Your task to perform on an android device: Go to ESPN.com Image 0: 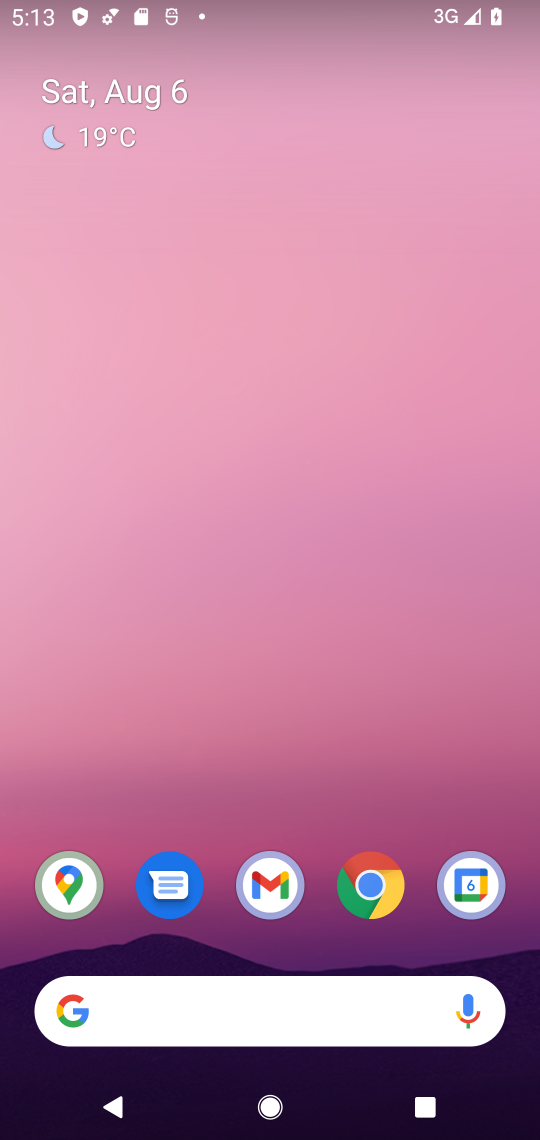
Step 0: drag from (435, 935) to (223, 42)
Your task to perform on an android device: Go to ESPN.com Image 1: 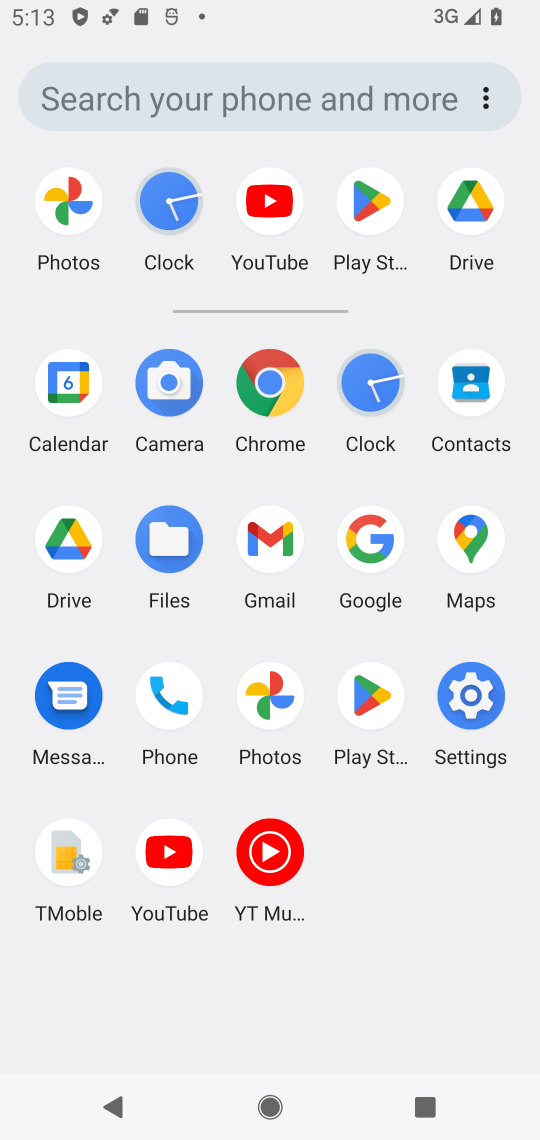
Step 1: click (361, 553)
Your task to perform on an android device: Go to ESPN.com Image 2: 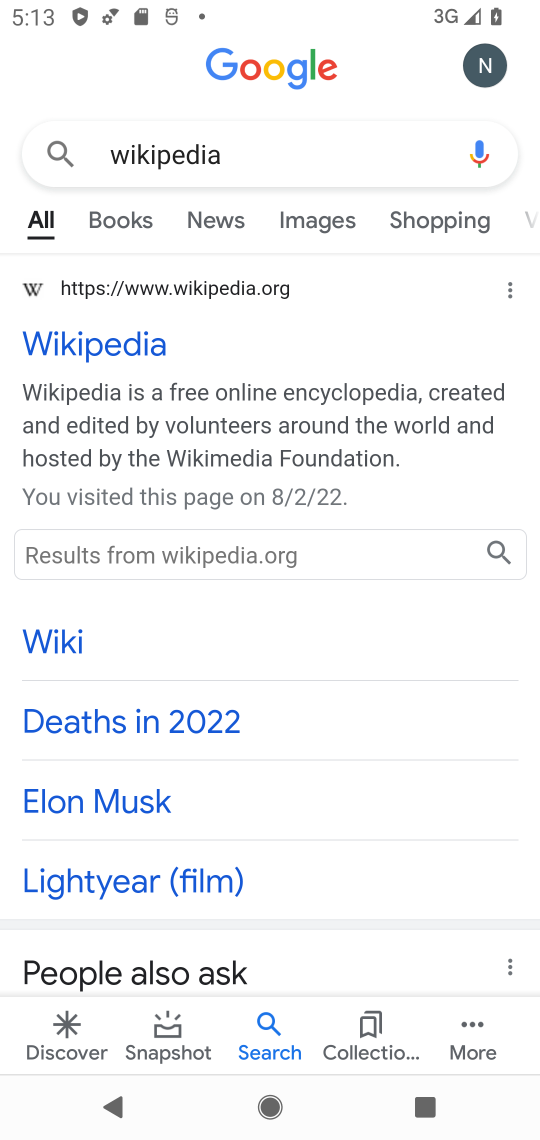
Step 2: press back button
Your task to perform on an android device: Go to ESPN.com Image 3: 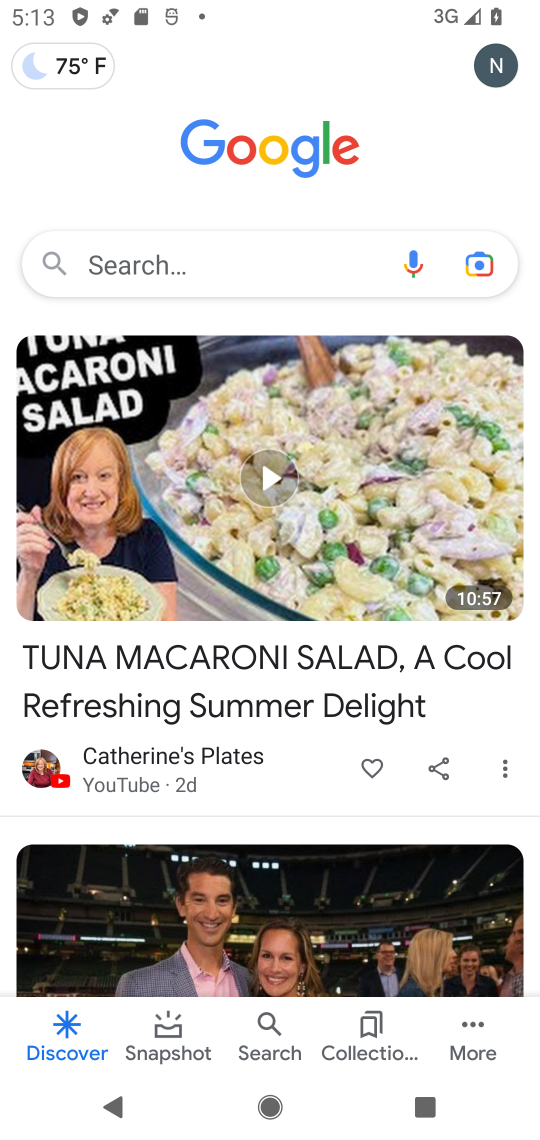
Step 3: click (129, 279)
Your task to perform on an android device: Go to ESPN.com Image 4: 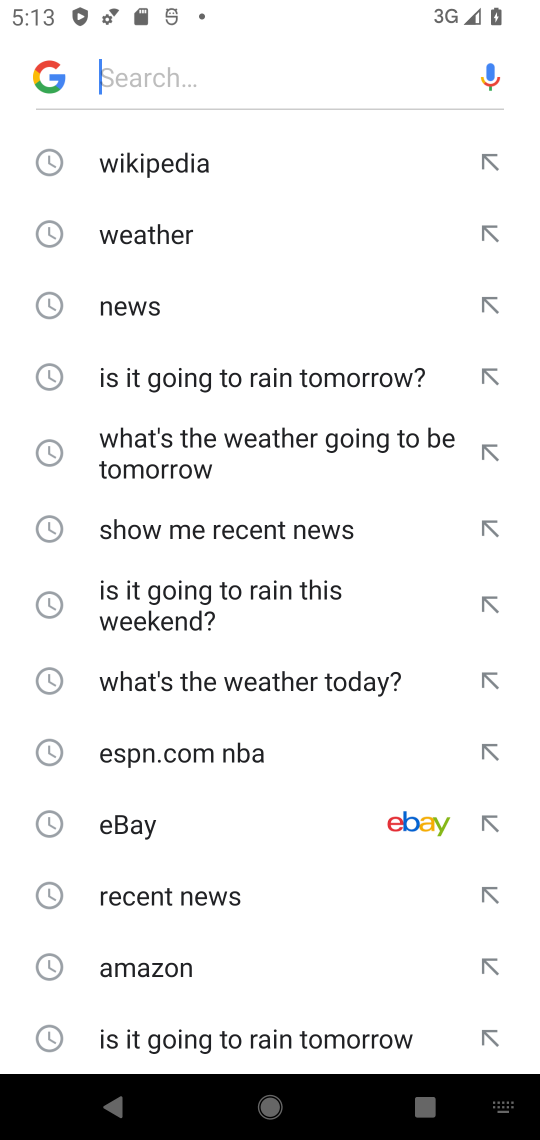
Step 4: task complete